Your task to perform on an android device: open chrome privacy settings Image 0: 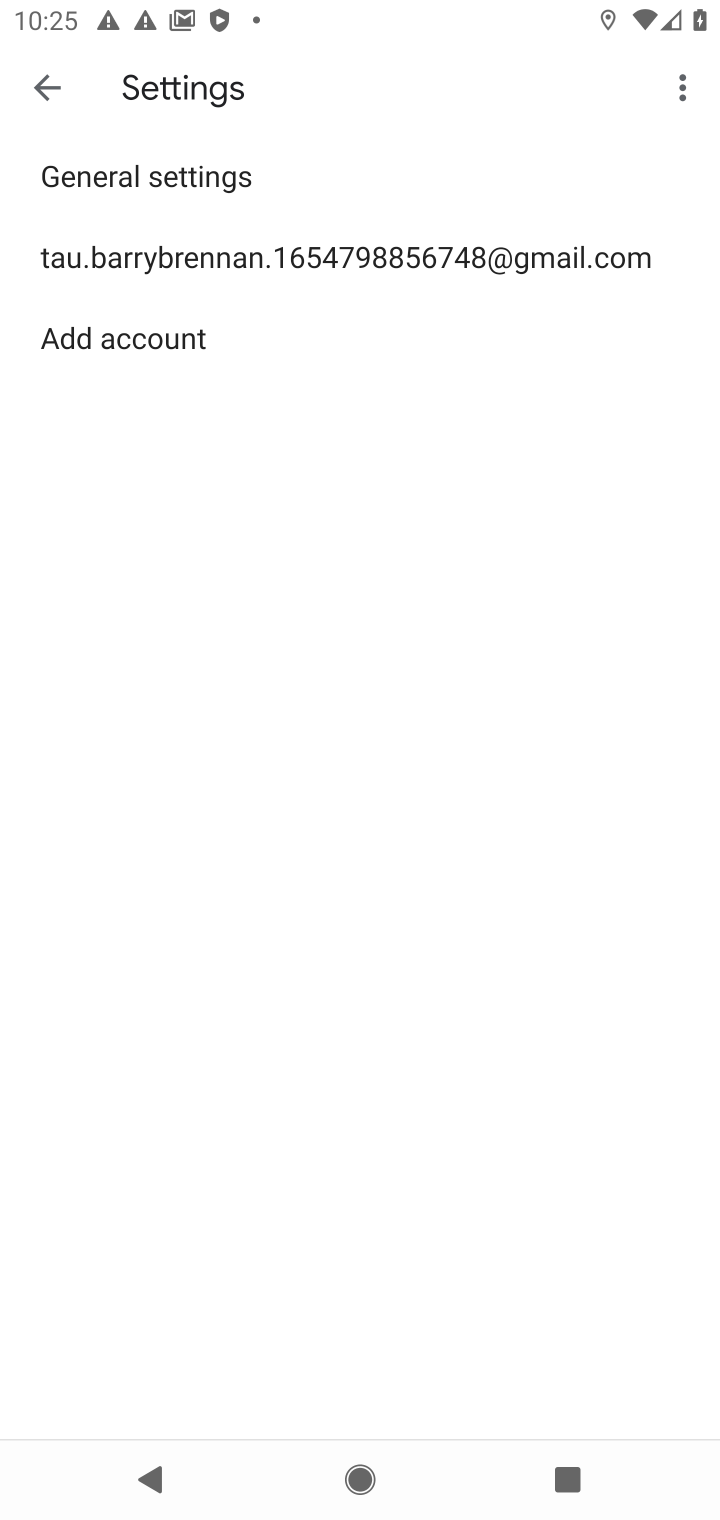
Step 0: task complete